Your task to perform on an android device: Open Google Chrome and open the bookmarks view Image 0: 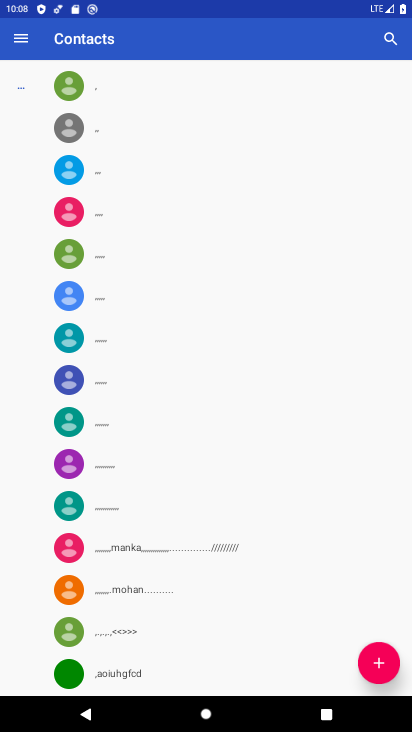
Step 0: press home button
Your task to perform on an android device: Open Google Chrome and open the bookmarks view Image 1: 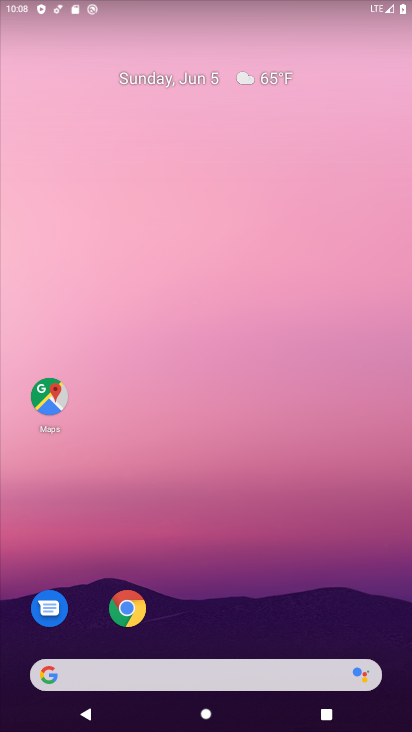
Step 1: click (130, 606)
Your task to perform on an android device: Open Google Chrome and open the bookmarks view Image 2: 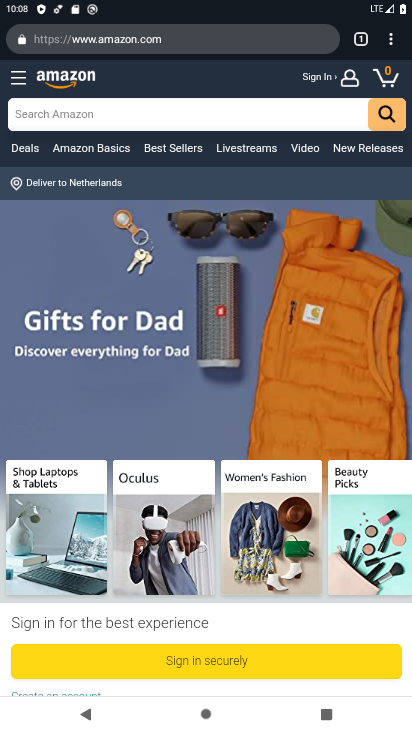
Step 2: drag from (398, 33) to (288, 189)
Your task to perform on an android device: Open Google Chrome and open the bookmarks view Image 3: 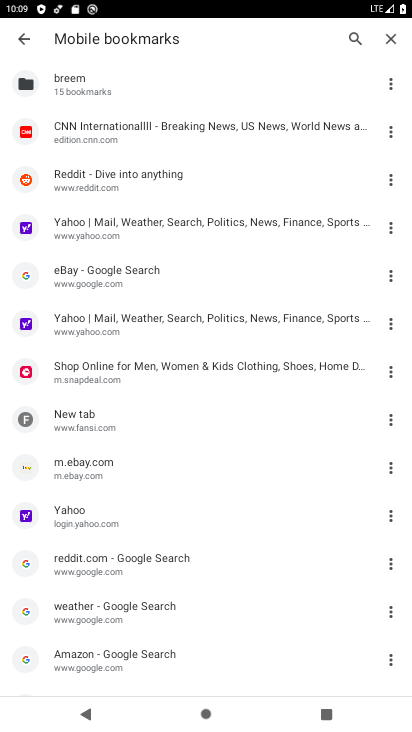
Step 3: click (108, 360)
Your task to perform on an android device: Open Google Chrome and open the bookmarks view Image 4: 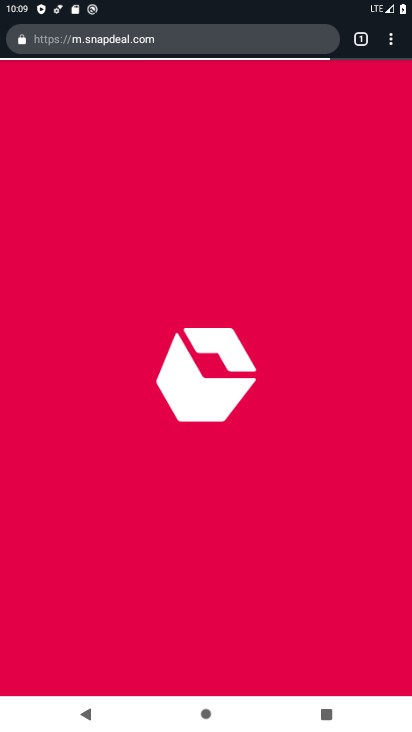
Step 4: task complete